Your task to perform on an android device: delete browsing data in the chrome app Image 0: 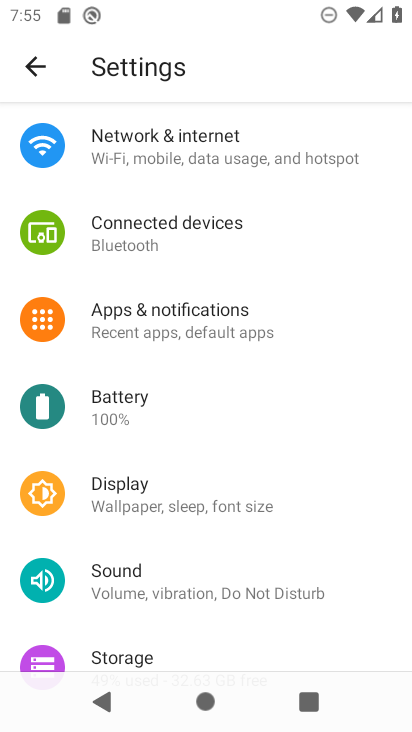
Step 0: press home button
Your task to perform on an android device: delete browsing data in the chrome app Image 1: 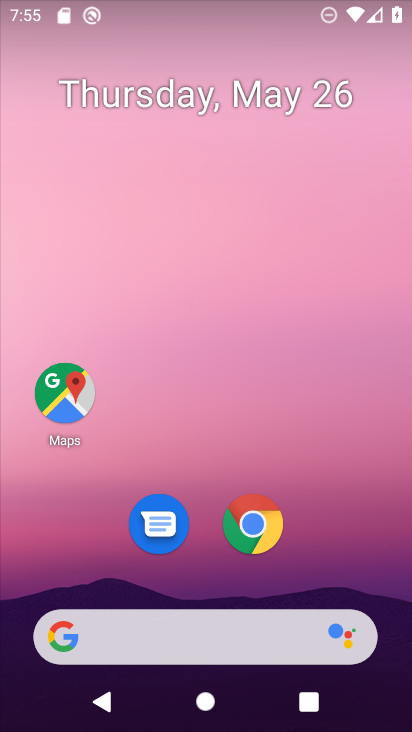
Step 1: click (260, 555)
Your task to perform on an android device: delete browsing data in the chrome app Image 2: 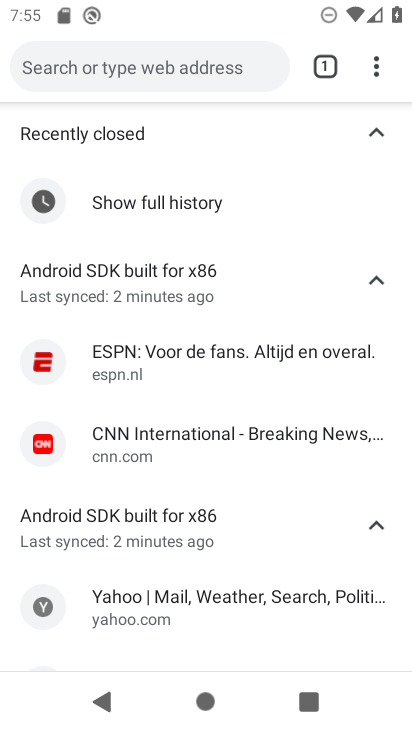
Step 2: click (372, 67)
Your task to perform on an android device: delete browsing data in the chrome app Image 3: 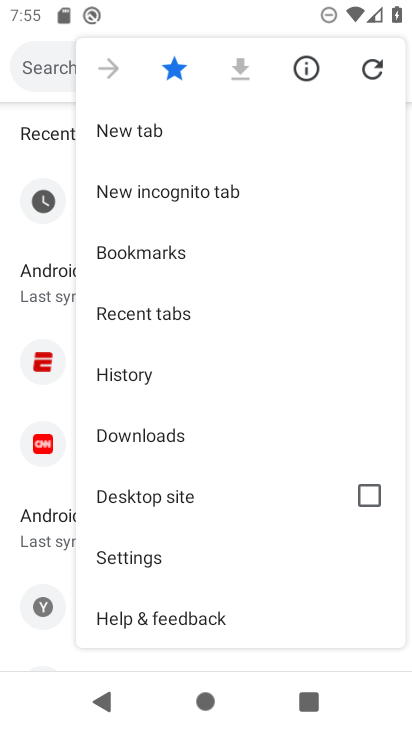
Step 3: click (131, 363)
Your task to perform on an android device: delete browsing data in the chrome app Image 4: 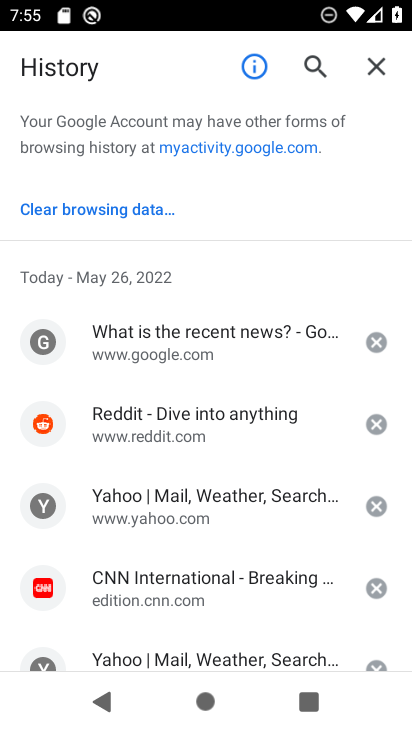
Step 4: click (131, 210)
Your task to perform on an android device: delete browsing data in the chrome app Image 5: 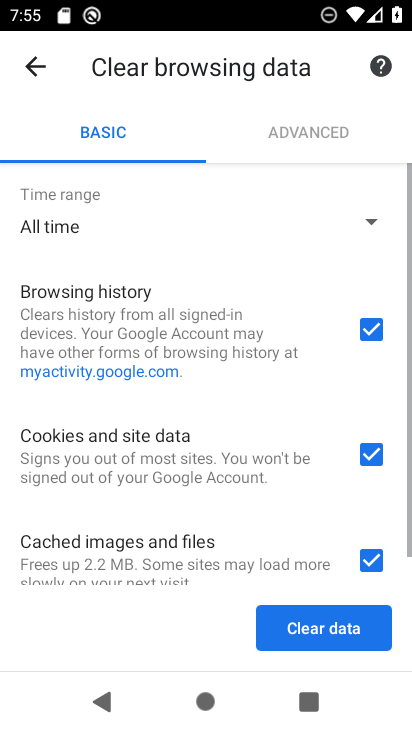
Step 5: click (354, 612)
Your task to perform on an android device: delete browsing data in the chrome app Image 6: 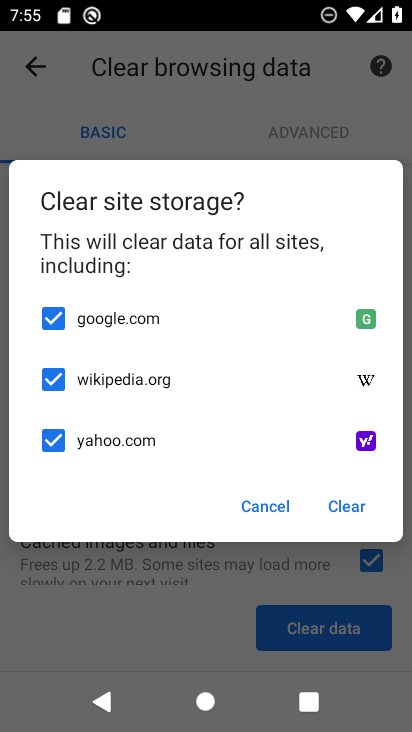
Step 6: click (345, 500)
Your task to perform on an android device: delete browsing data in the chrome app Image 7: 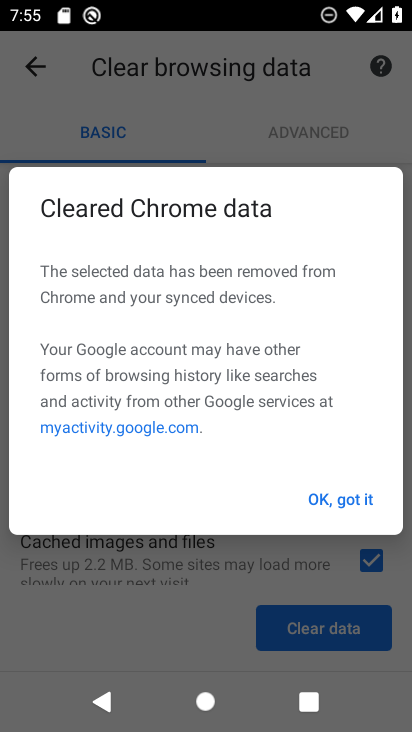
Step 7: click (366, 499)
Your task to perform on an android device: delete browsing data in the chrome app Image 8: 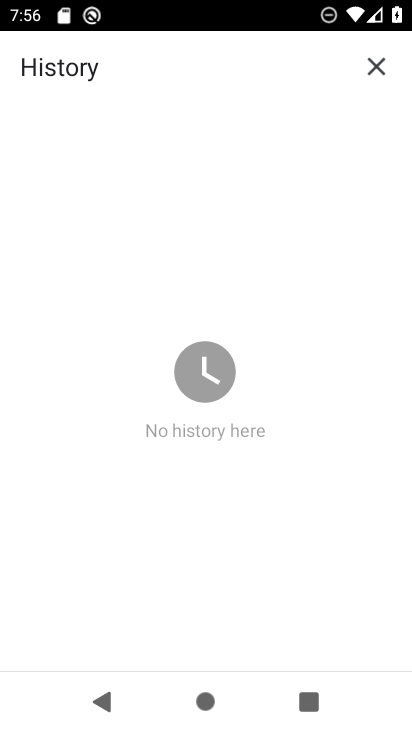
Step 8: task complete